Your task to perform on an android device: Go to settings Image 0: 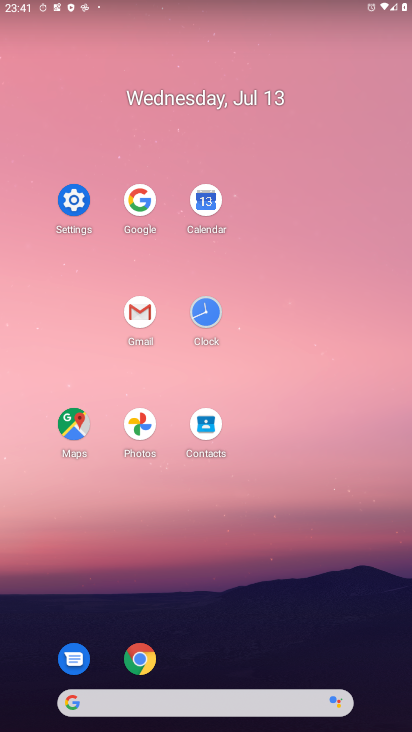
Step 0: click (72, 194)
Your task to perform on an android device: Go to settings Image 1: 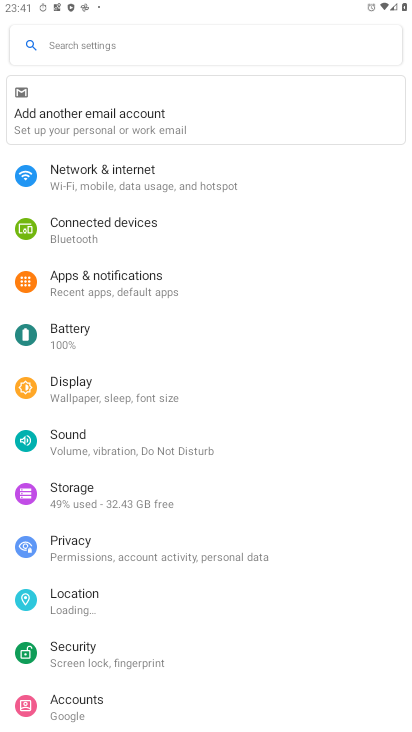
Step 1: task complete